Your task to perform on an android device: open sync settings in chrome Image 0: 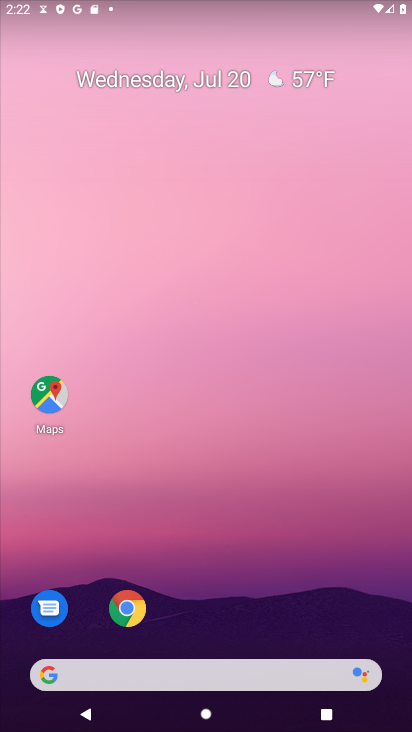
Step 0: click (123, 606)
Your task to perform on an android device: open sync settings in chrome Image 1: 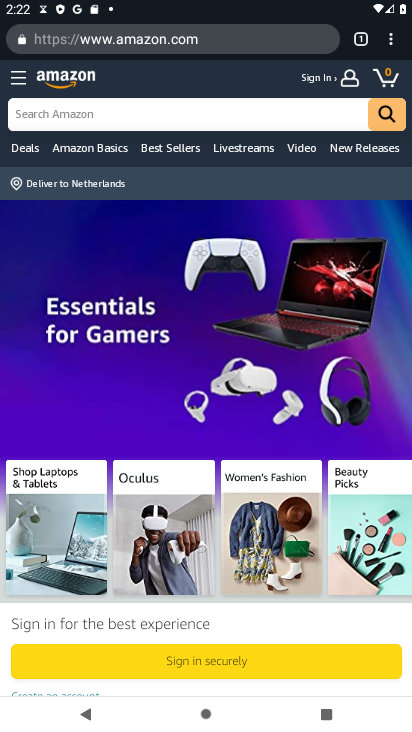
Step 1: click (390, 41)
Your task to perform on an android device: open sync settings in chrome Image 2: 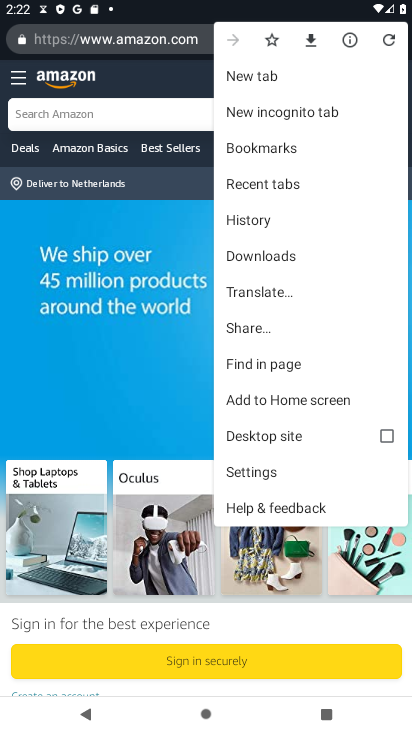
Step 2: click (235, 468)
Your task to perform on an android device: open sync settings in chrome Image 3: 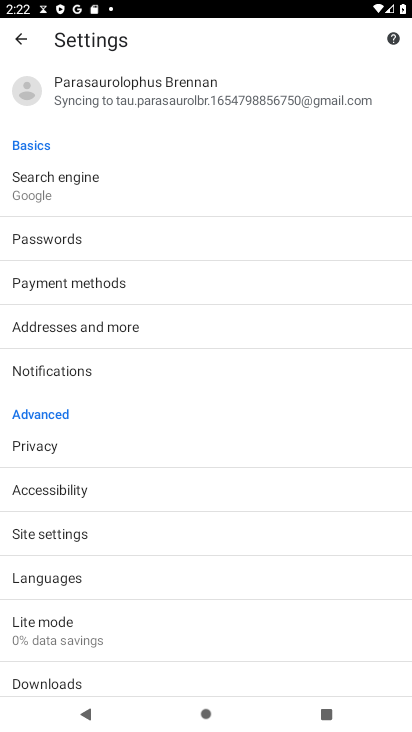
Step 3: click (138, 73)
Your task to perform on an android device: open sync settings in chrome Image 4: 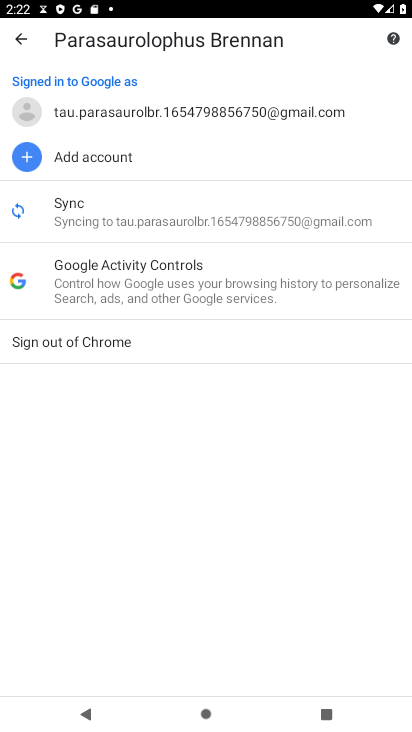
Step 4: task complete